Your task to perform on an android device: Search for logitech g pro on amazon, select the first entry, and add it to the cart. Image 0: 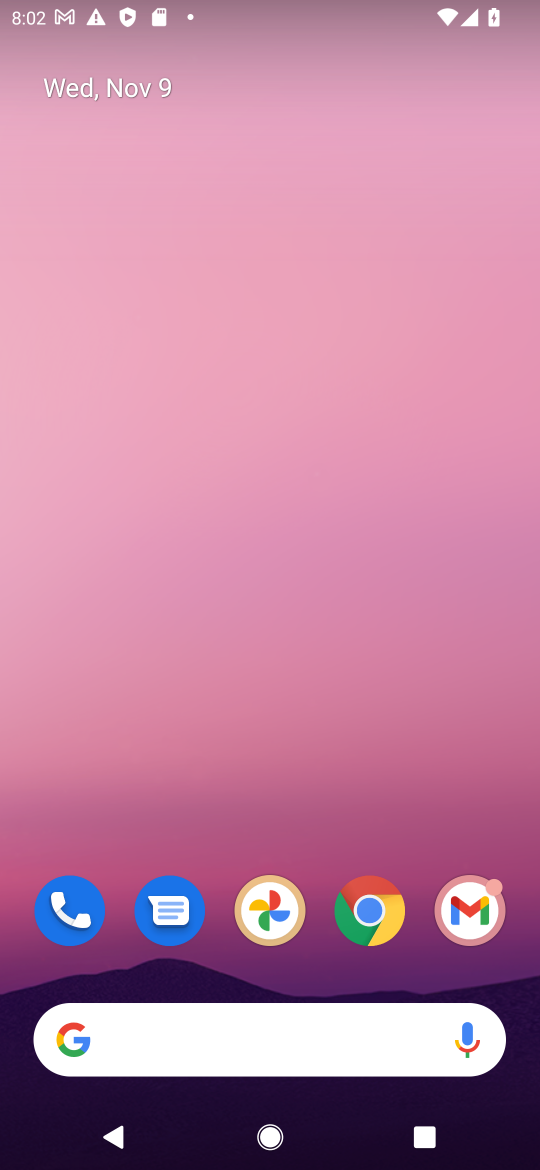
Step 0: click (380, 917)
Your task to perform on an android device: Search for logitech g pro on amazon, select the first entry, and add it to the cart. Image 1: 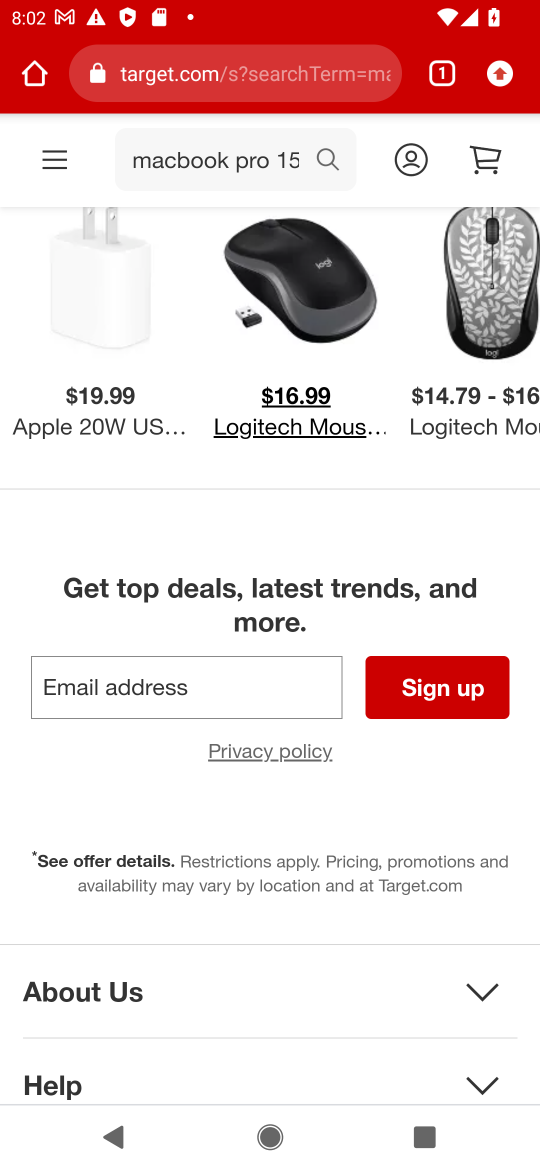
Step 1: click (256, 72)
Your task to perform on an android device: Search for logitech g pro on amazon, select the first entry, and add it to the cart. Image 2: 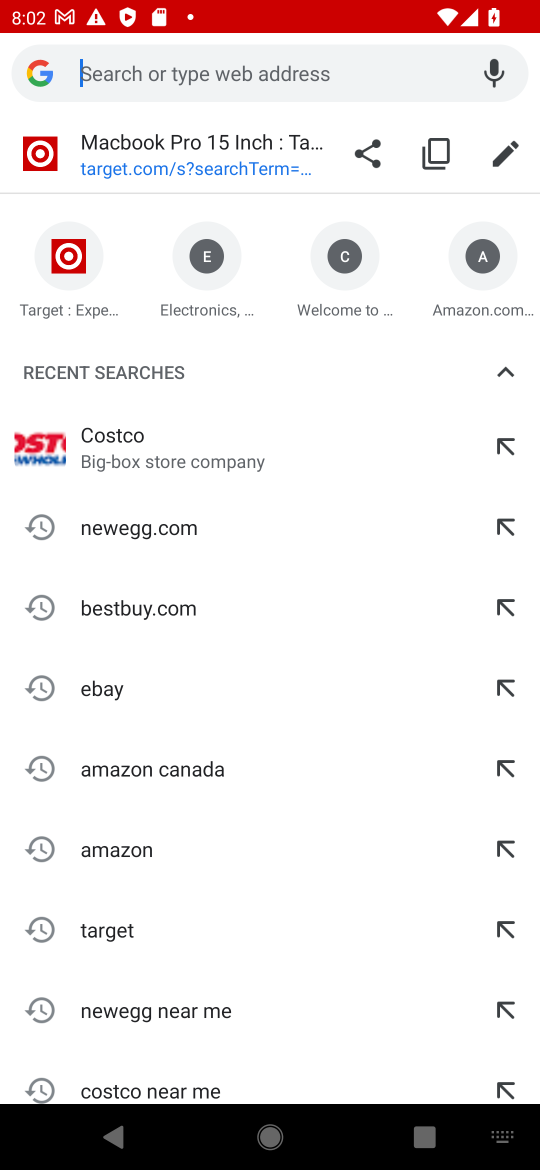
Step 2: click (474, 263)
Your task to perform on an android device: Search for logitech g pro on amazon, select the first entry, and add it to the cart. Image 3: 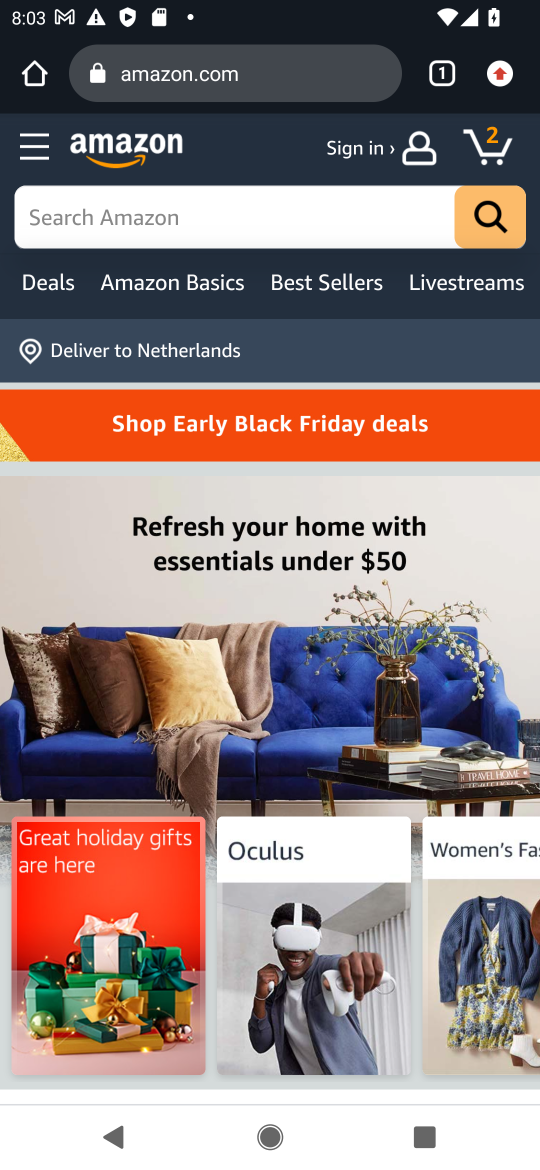
Step 3: click (98, 227)
Your task to perform on an android device: Search for logitech g pro on amazon, select the first entry, and add it to the cart. Image 4: 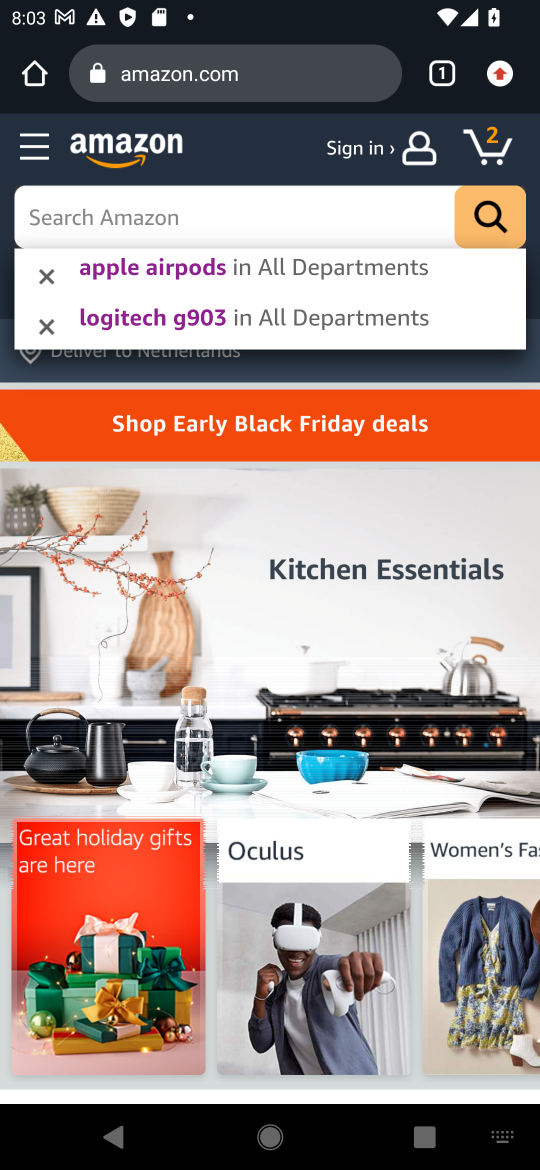
Step 4: type "logitech g pro"
Your task to perform on an android device: Search for logitech g pro on amazon, select the first entry, and add it to the cart. Image 5: 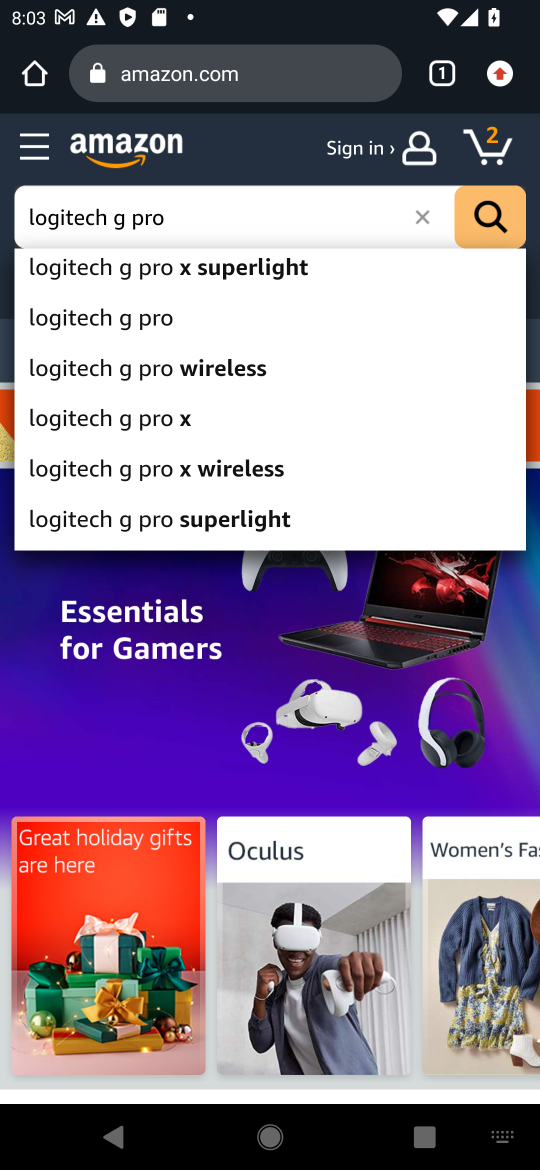
Step 5: click (141, 323)
Your task to perform on an android device: Search for logitech g pro on amazon, select the first entry, and add it to the cart. Image 6: 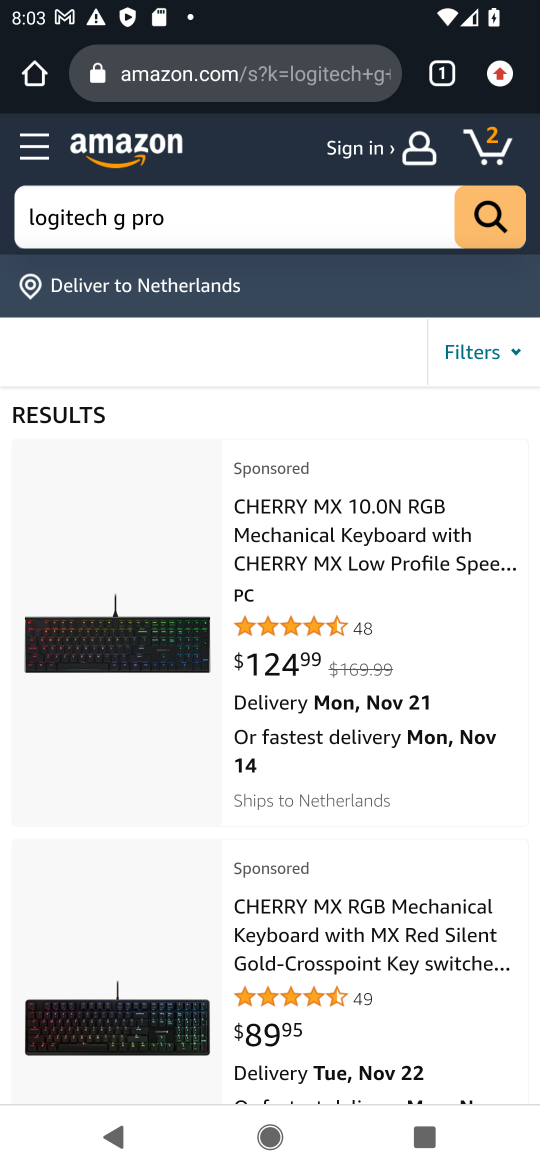
Step 6: click (490, 213)
Your task to perform on an android device: Search for logitech g pro on amazon, select the first entry, and add it to the cart. Image 7: 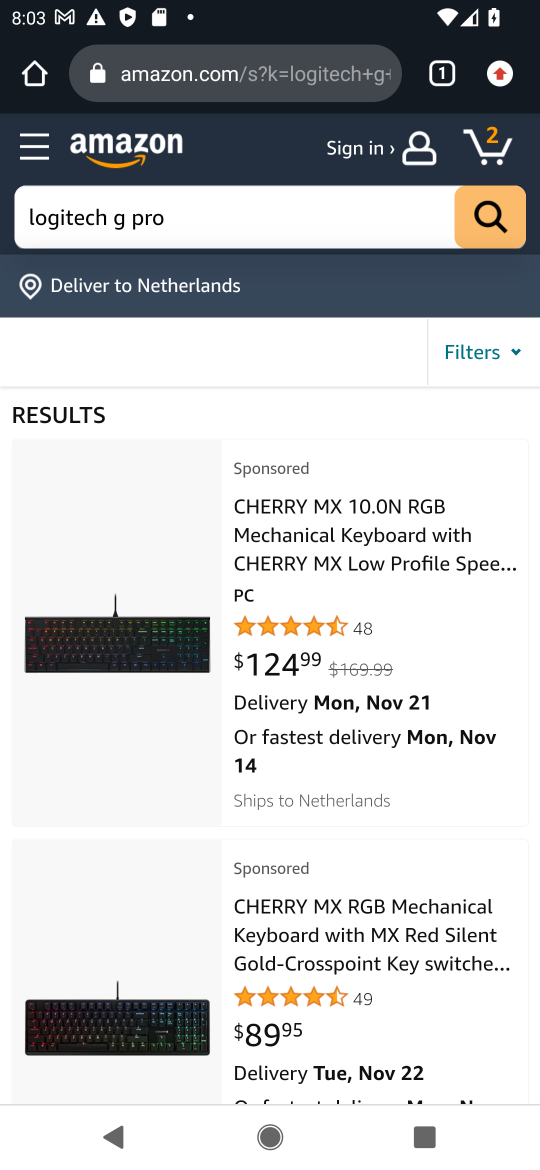
Step 7: task complete